Your task to perform on an android device: Search for seafood restaurants on Google Maps Image 0: 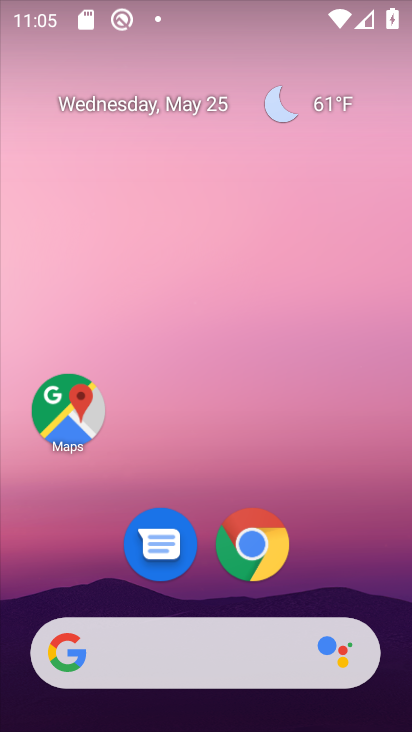
Step 0: click (78, 415)
Your task to perform on an android device: Search for seafood restaurants on Google Maps Image 1: 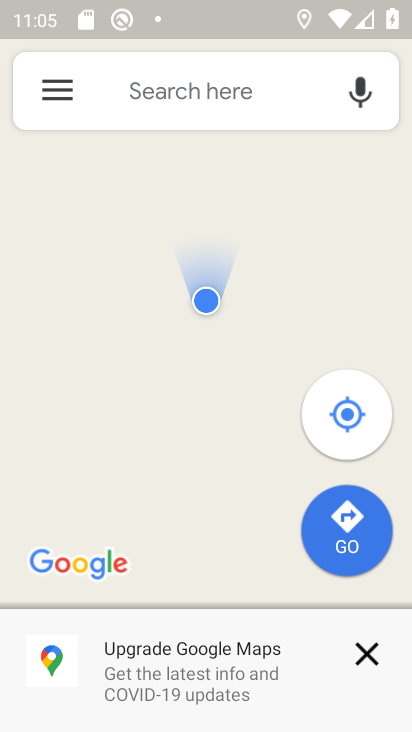
Step 1: click (168, 99)
Your task to perform on an android device: Search for seafood restaurants on Google Maps Image 2: 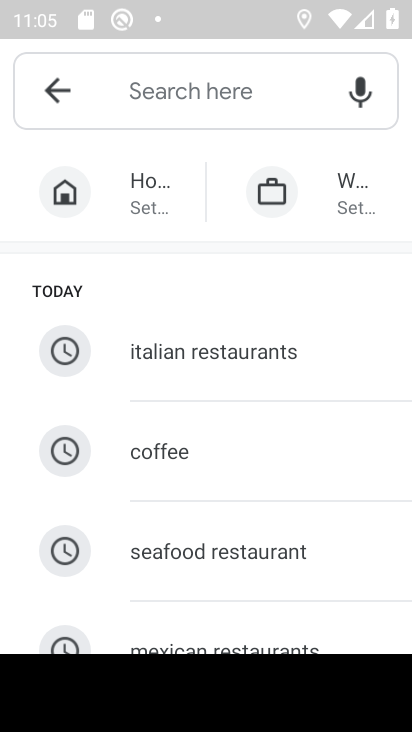
Step 2: click (185, 548)
Your task to perform on an android device: Search for seafood restaurants on Google Maps Image 3: 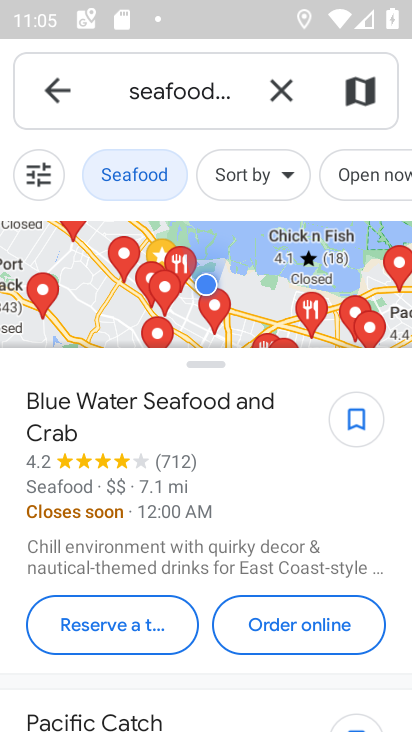
Step 3: task complete